Your task to perform on an android device: Open calendar and show me the first week of next month Image 0: 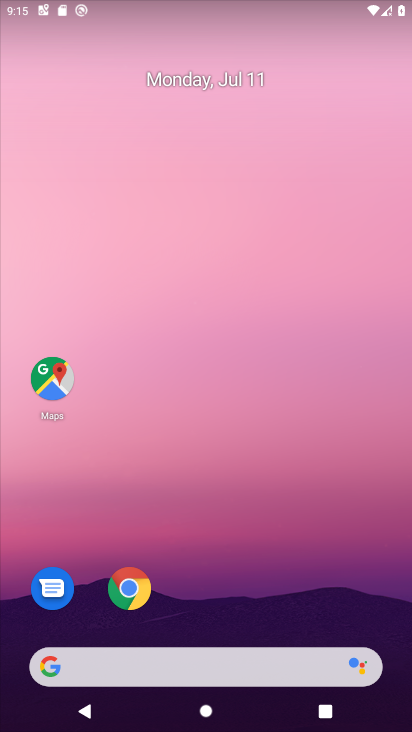
Step 0: drag from (232, 614) to (223, 174)
Your task to perform on an android device: Open calendar and show me the first week of next month Image 1: 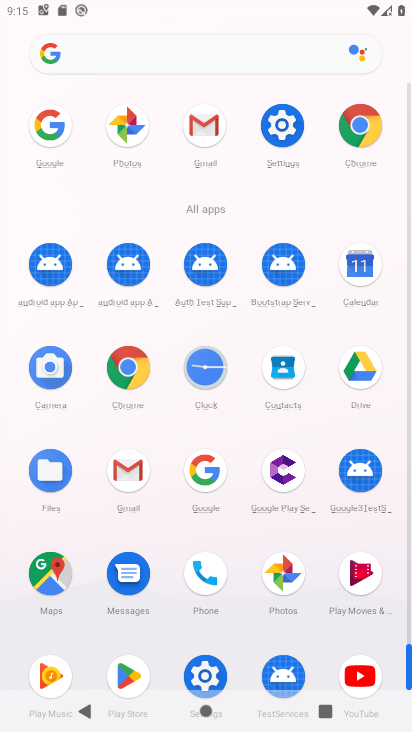
Step 1: click (354, 256)
Your task to perform on an android device: Open calendar and show me the first week of next month Image 2: 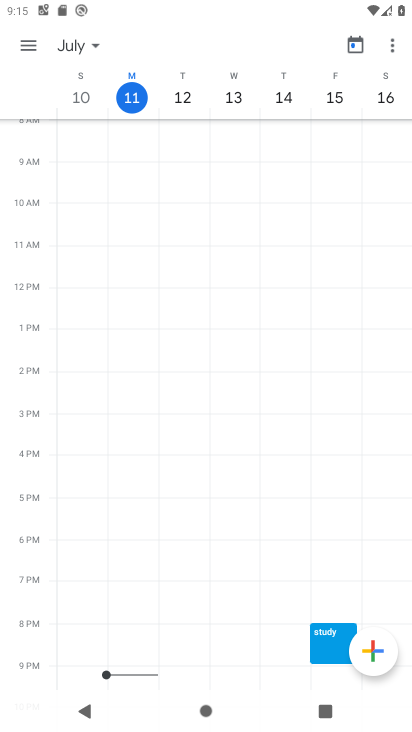
Step 2: click (39, 37)
Your task to perform on an android device: Open calendar and show me the first week of next month Image 3: 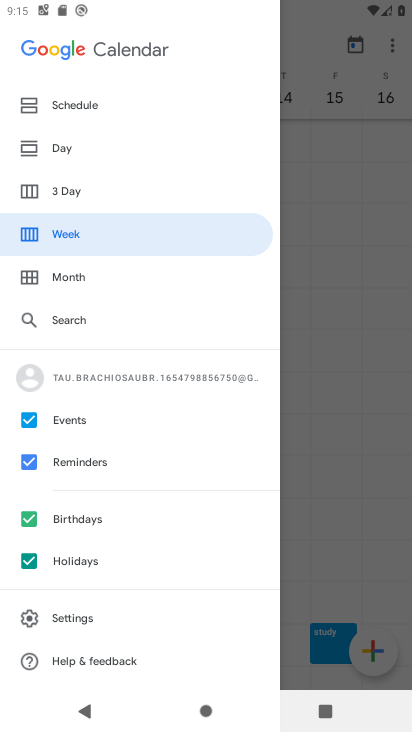
Step 3: click (91, 288)
Your task to perform on an android device: Open calendar and show me the first week of next month Image 4: 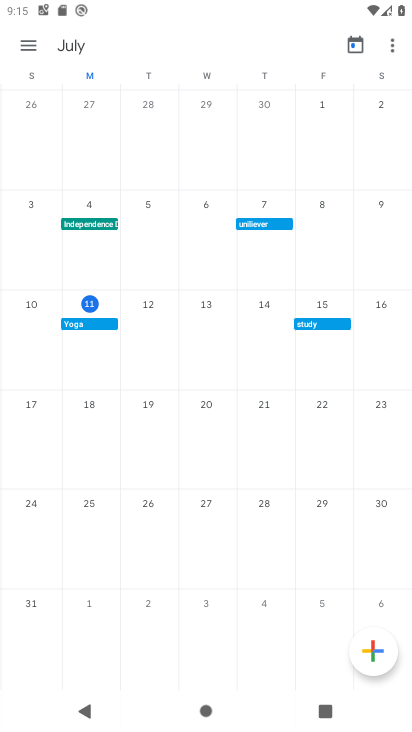
Step 4: task complete